Your task to perform on an android device: Go to Google Image 0: 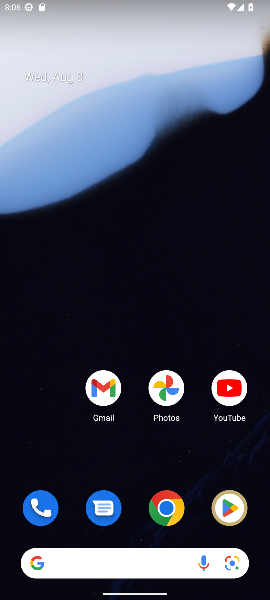
Step 0: click (146, 568)
Your task to perform on an android device: Go to Google Image 1: 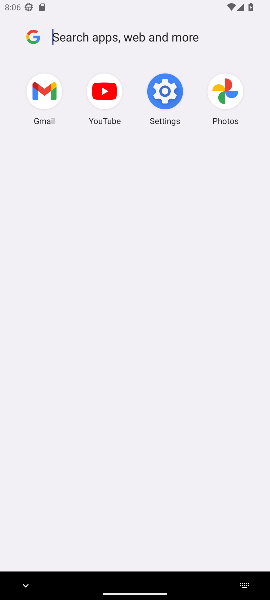
Step 1: press back button
Your task to perform on an android device: Go to Google Image 2: 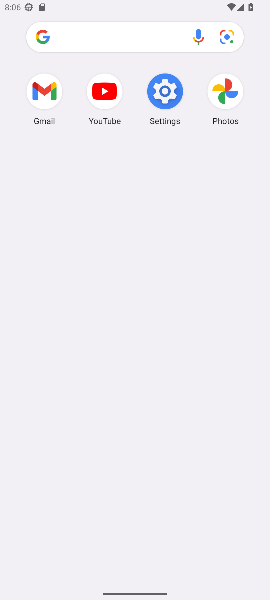
Step 2: press back button
Your task to perform on an android device: Go to Google Image 3: 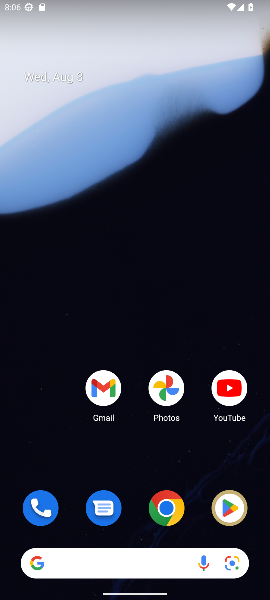
Step 3: click (154, 555)
Your task to perform on an android device: Go to Google Image 4: 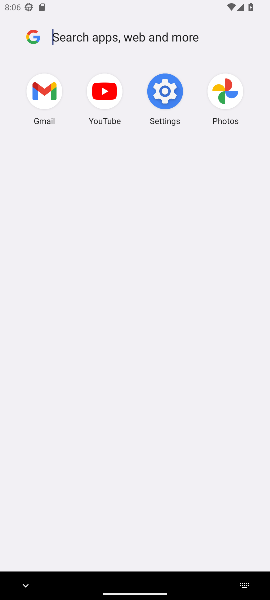
Step 4: task complete